Your task to perform on an android device: open app "Walmart Shopping & Grocery" (install if not already installed) Image 0: 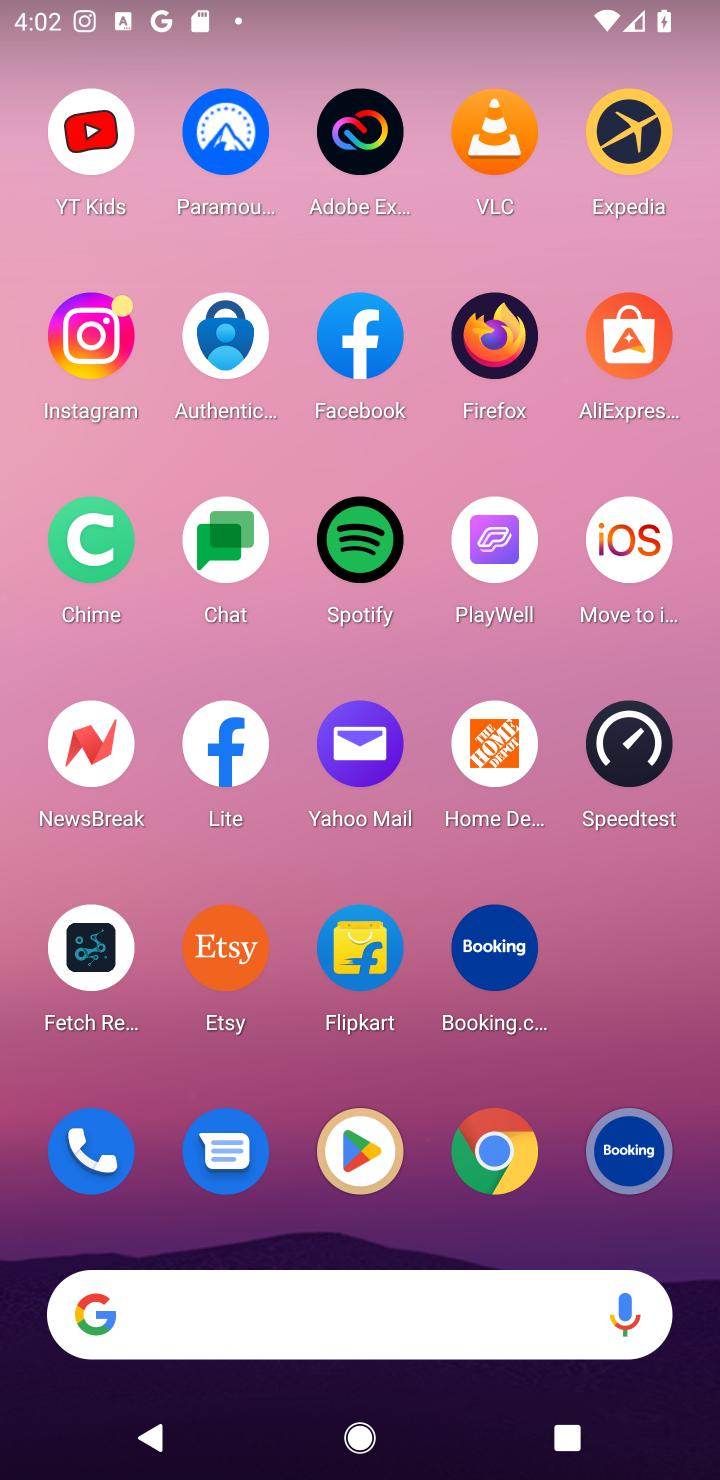
Step 0: press home button
Your task to perform on an android device: open app "Walmart Shopping & Grocery" (install if not already installed) Image 1: 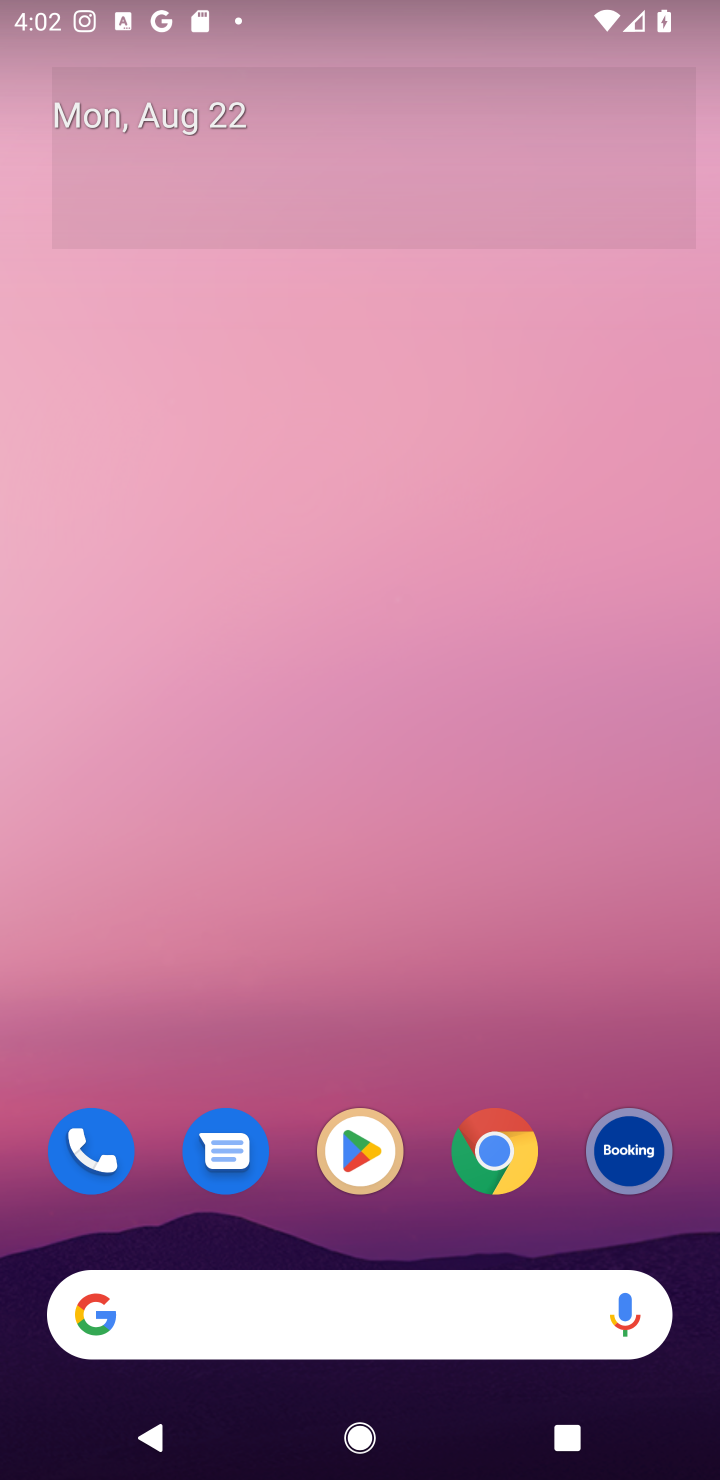
Step 1: click (377, 1137)
Your task to perform on an android device: open app "Walmart Shopping & Grocery" (install if not already installed) Image 2: 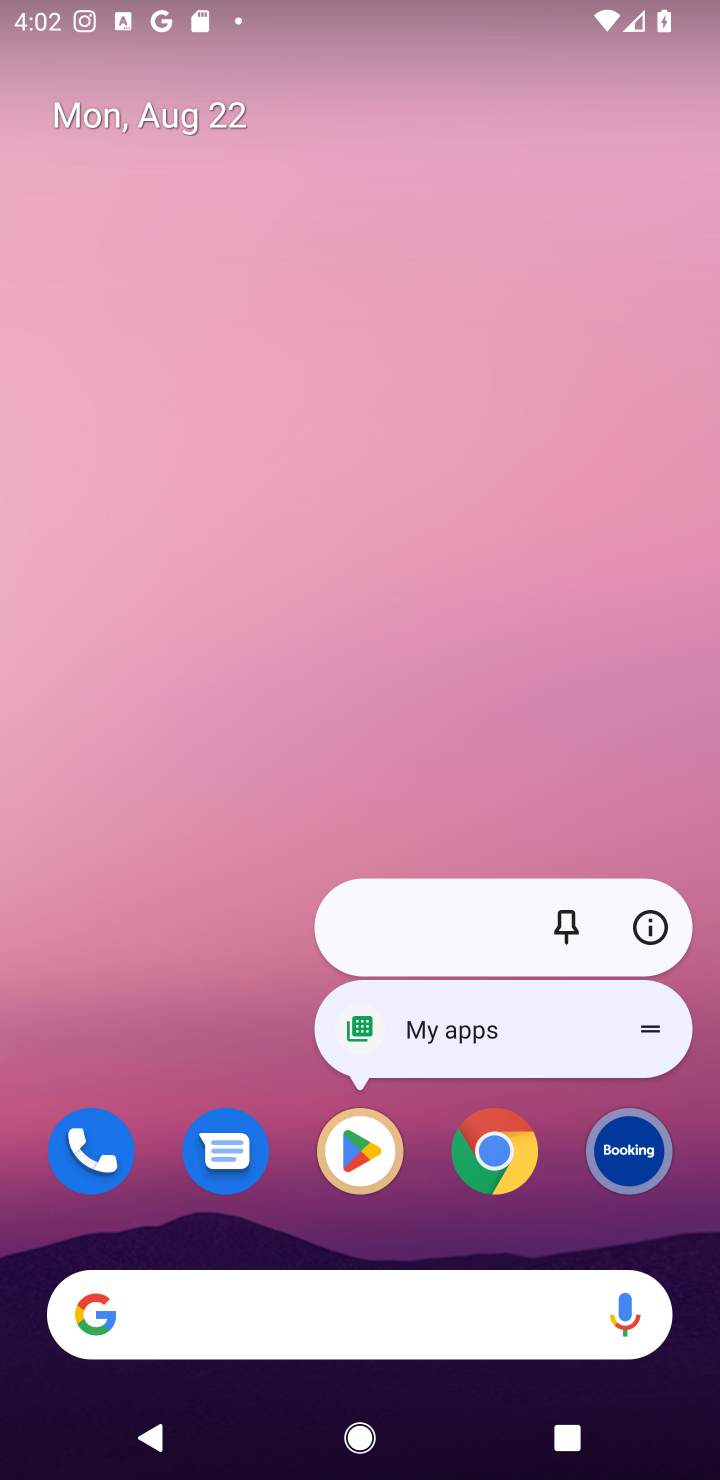
Step 2: click (355, 1139)
Your task to perform on an android device: open app "Walmart Shopping & Grocery" (install if not already installed) Image 3: 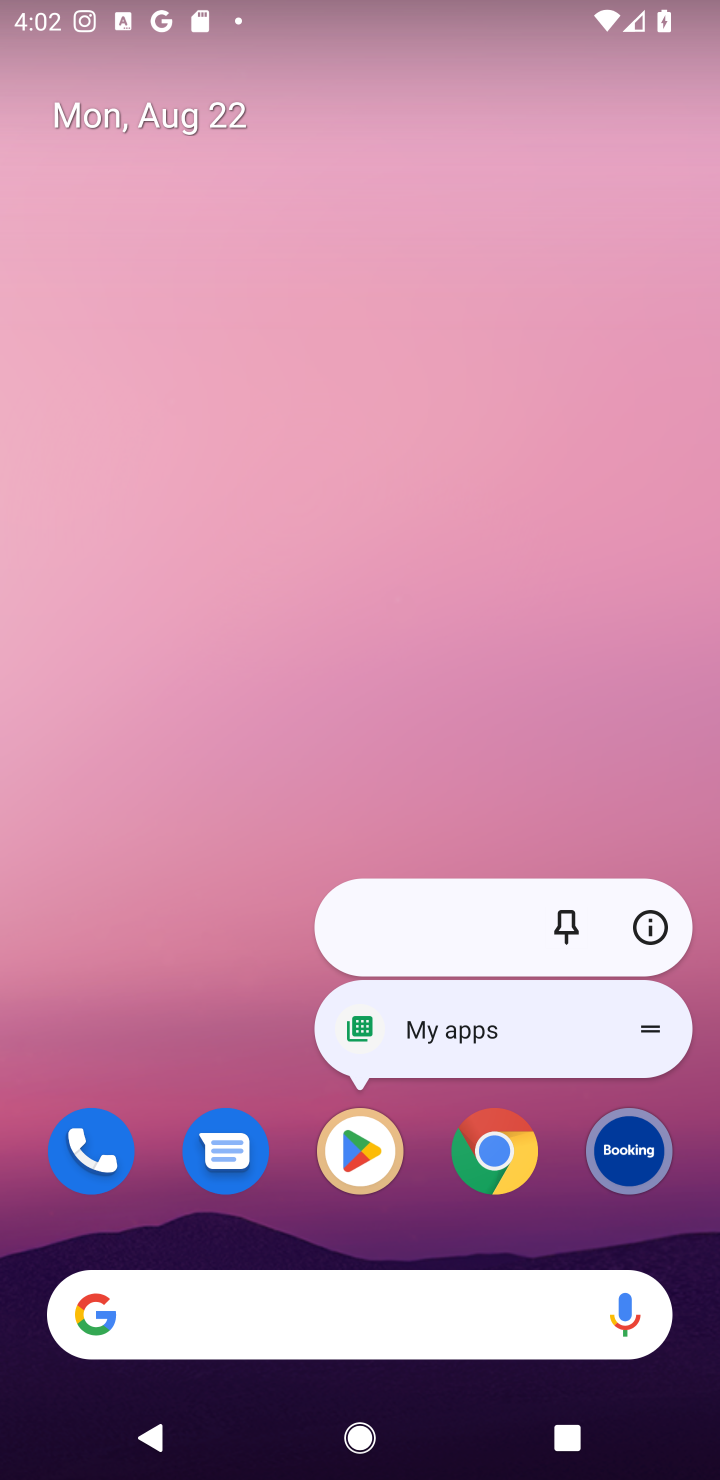
Step 3: click (355, 1161)
Your task to perform on an android device: open app "Walmart Shopping & Grocery" (install if not already installed) Image 4: 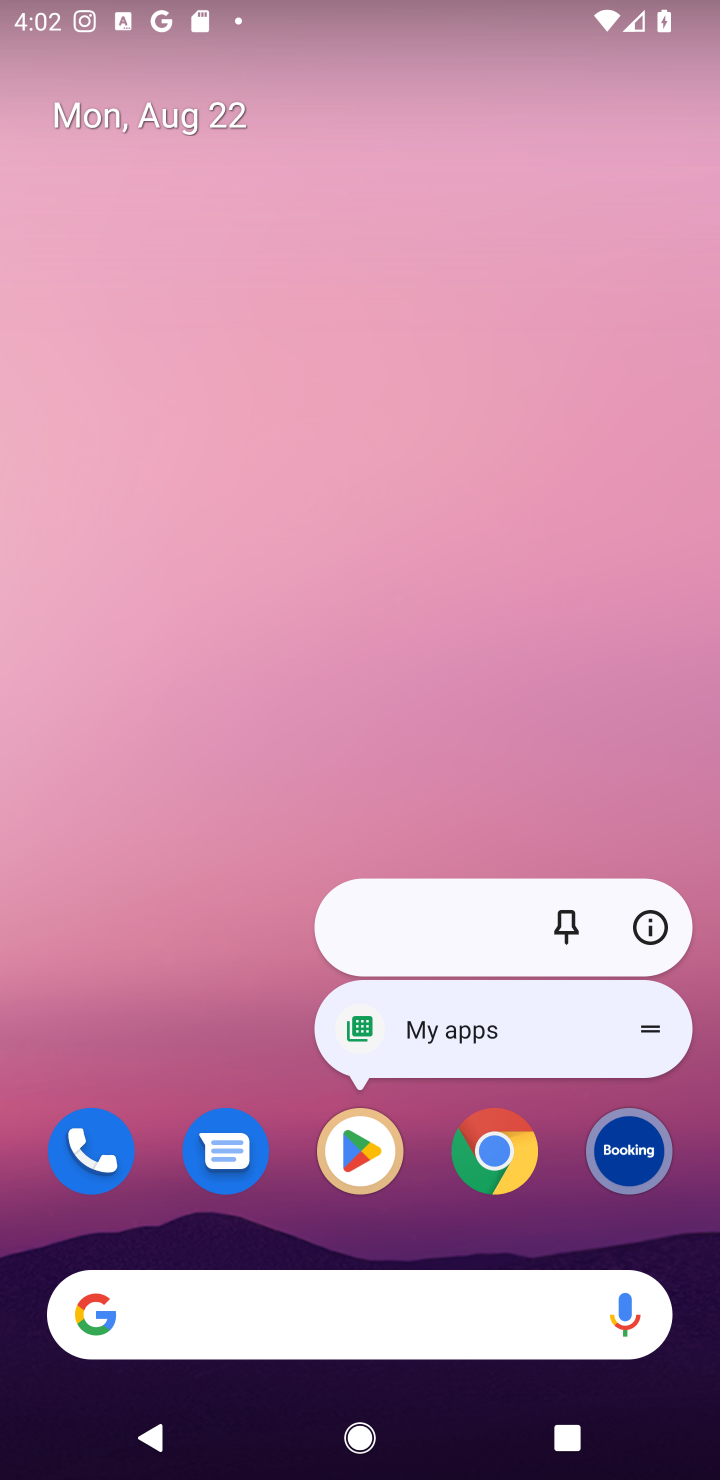
Step 4: click (355, 1165)
Your task to perform on an android device: open app "Walmart Shopping & Grocery" (install if not already installed) Image 5: 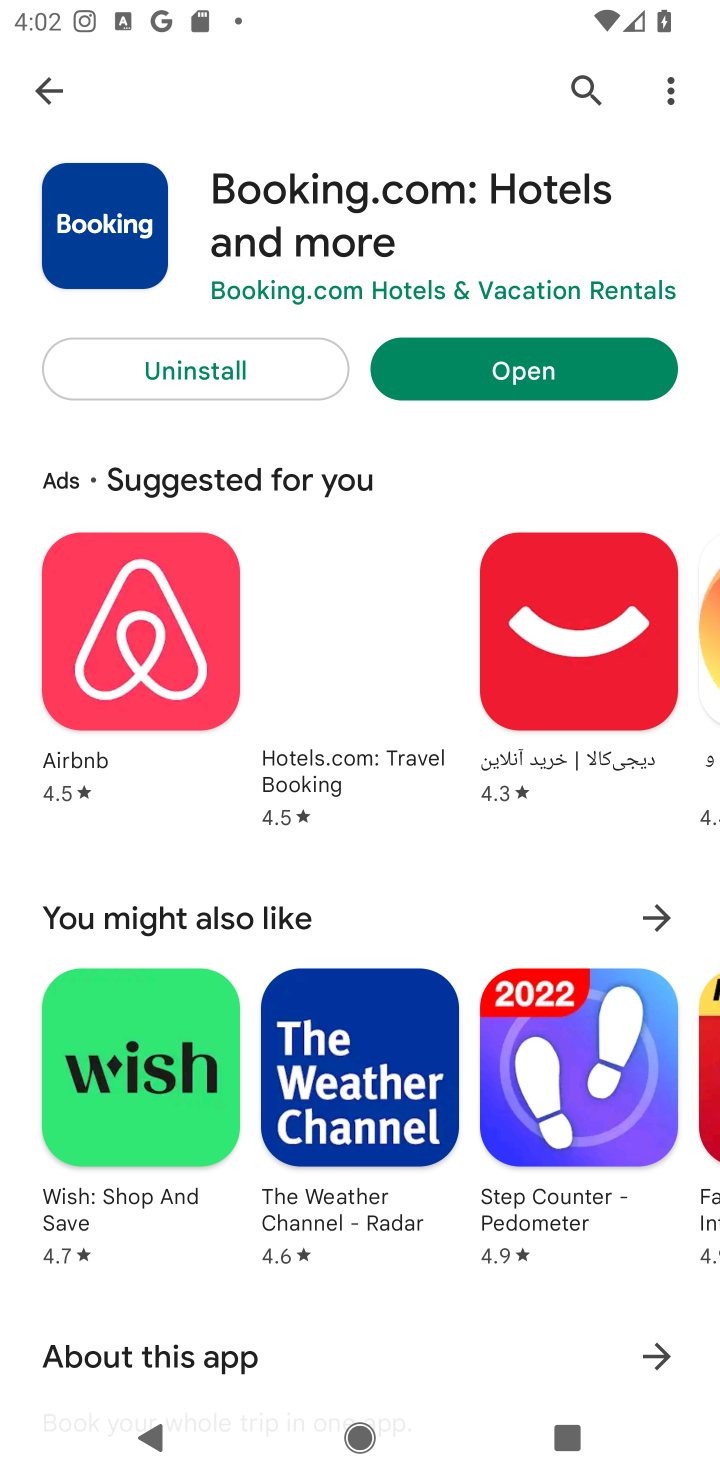
Step 5: click (571, 83)
Your task to perform on an android device: open app "Walmart Shopping & Grocery" (install if not already installed) Image 6: 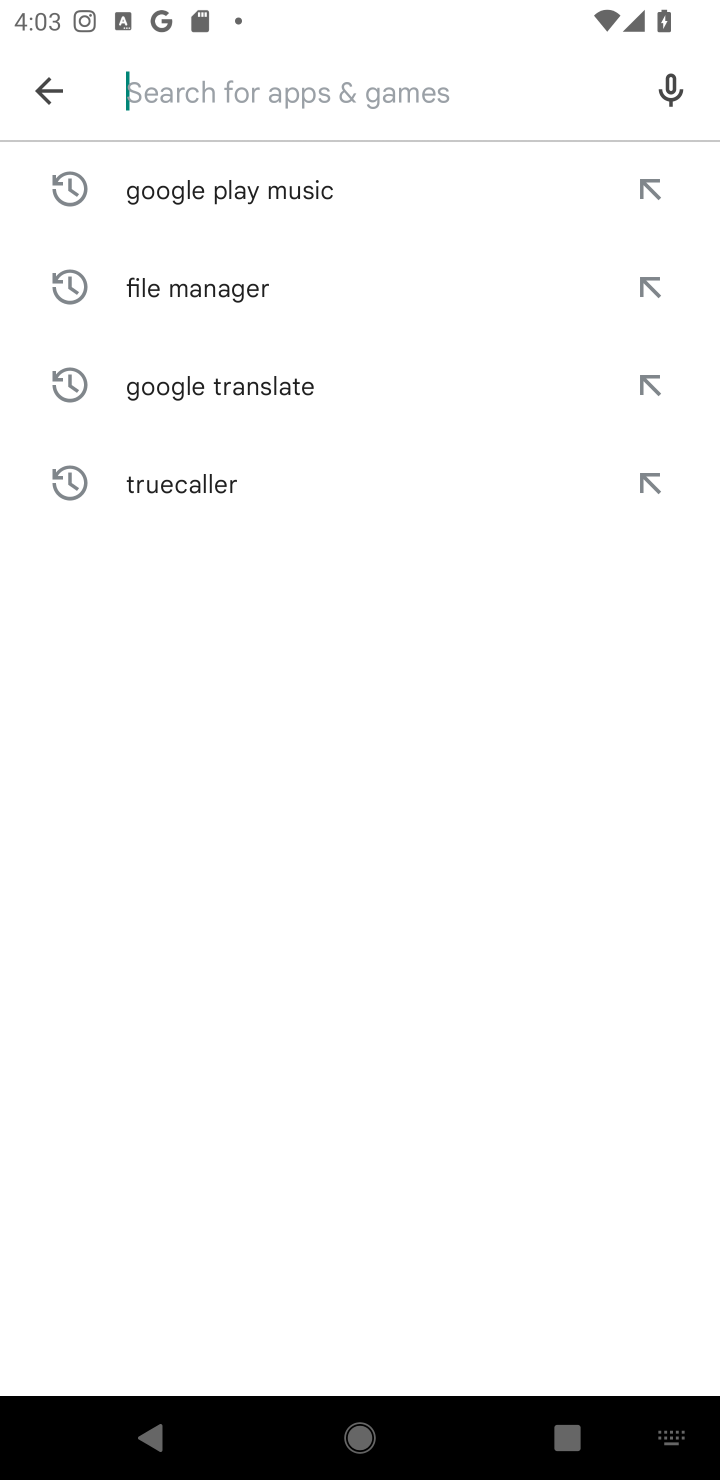
Step 6: type "Walmart Shopping & Grocery"
Your task to perform on an android device: open app "Walmart Shopping & Grocery" (install if not already installed) Image 7: 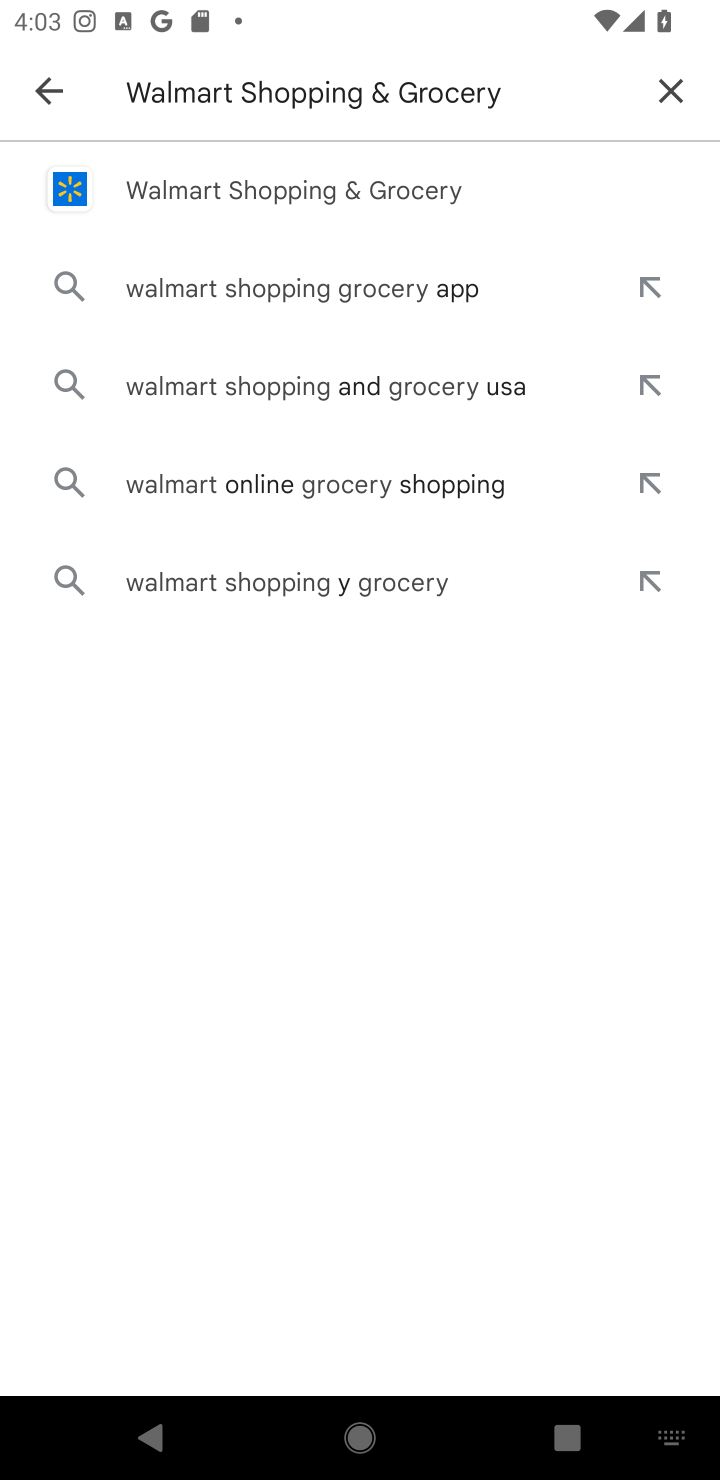
Step 7: click (338, 179)
Your task to perform on an android device: open app "Walmart Shopping & Grocery" (install if not already installed) Image 8: 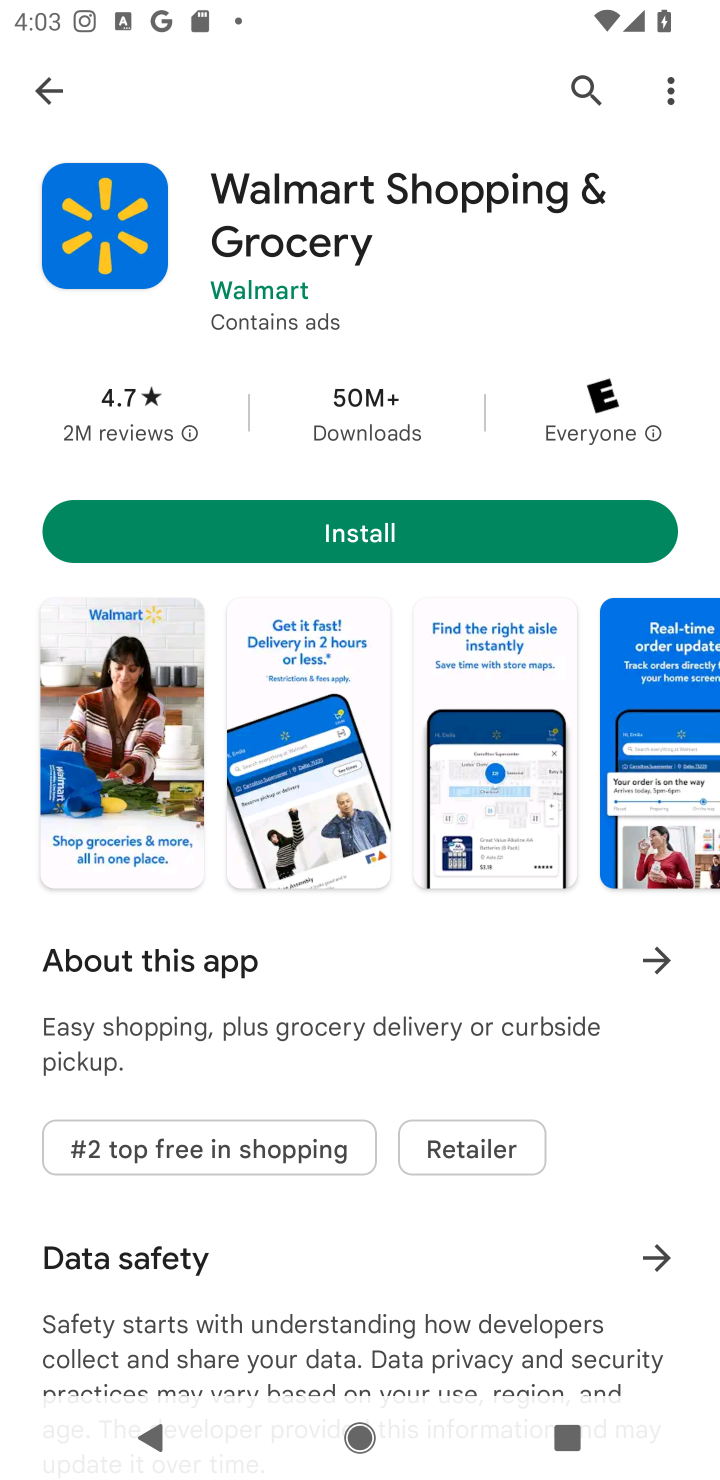
Step 8: click (385, 528)
Your task to perform on an android device: open app "Walmart Shopping & Grocery" (install if not already installed) Image 9: 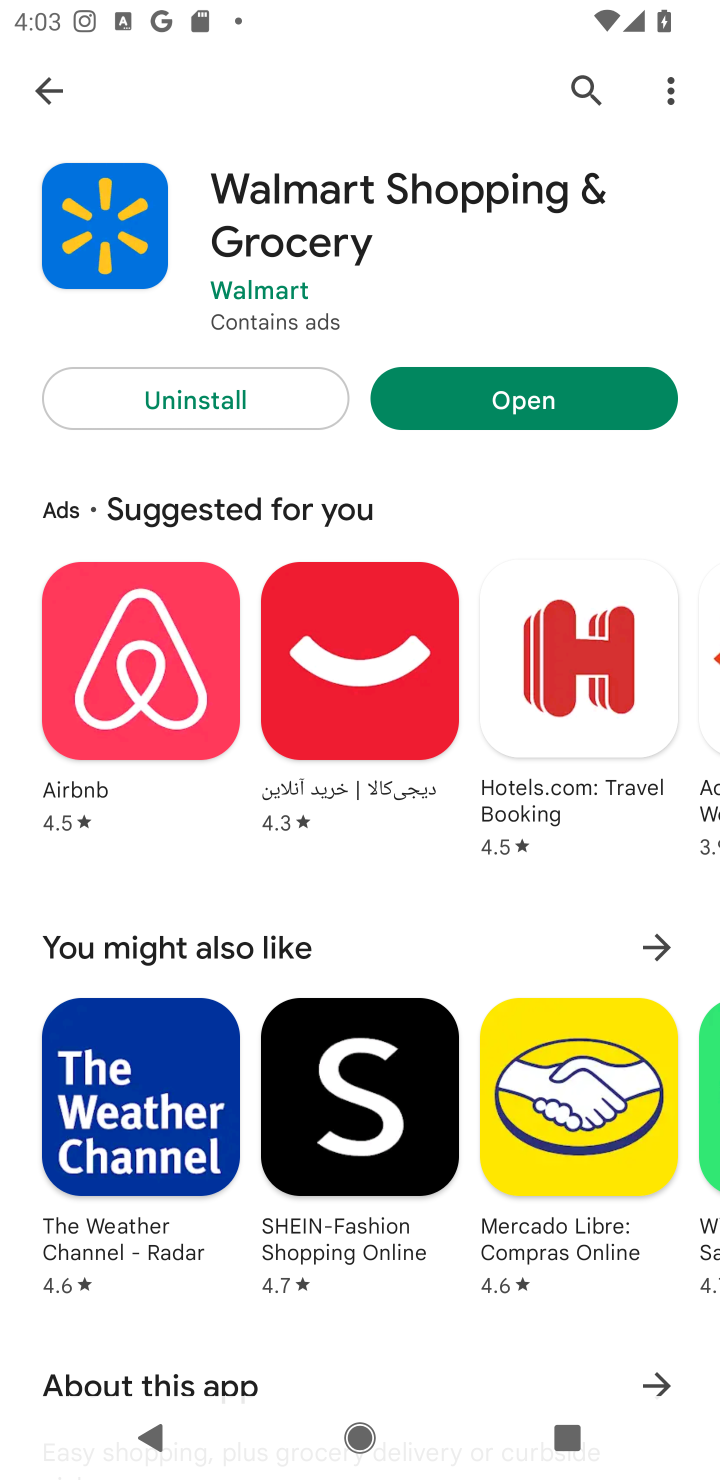
Step 9: click (530, 404)
Your task to perform on an android device: open app "Walmart Shopping & Grocery" (install if not already installed) Image 10: 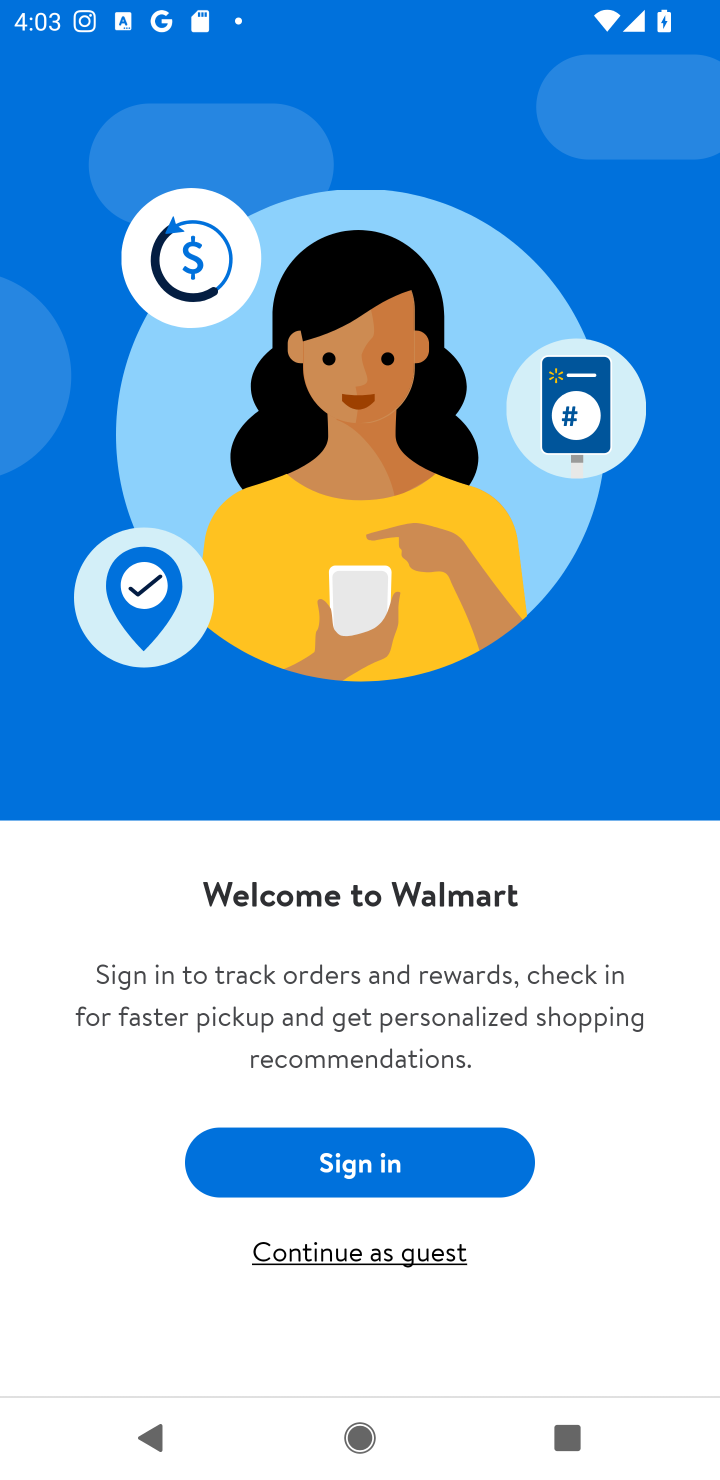
Step 10: task complete